Your task to perform on an android device: open a bookmark in the chrome app Image 0: 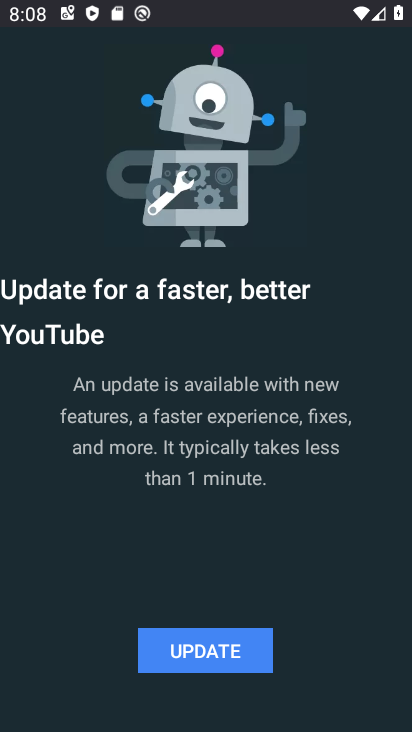
Step 0: press home button
Your task to perform on an android device: open a bookmark in the chrome app Image 1: 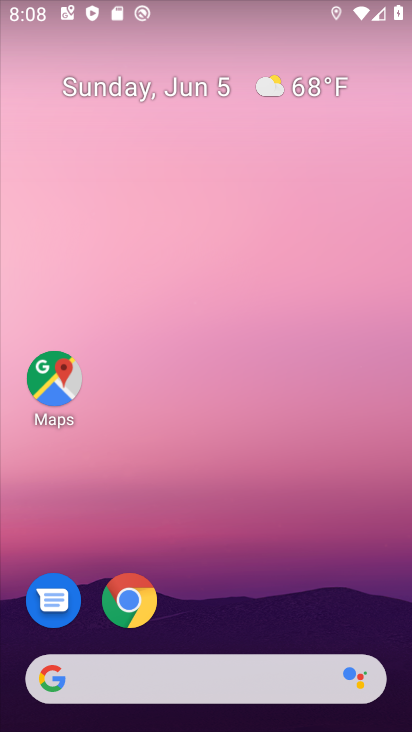
Step 1: click (141, 606)
Your task to perform on an android device: open a bookmark in the chrome app Image 2: 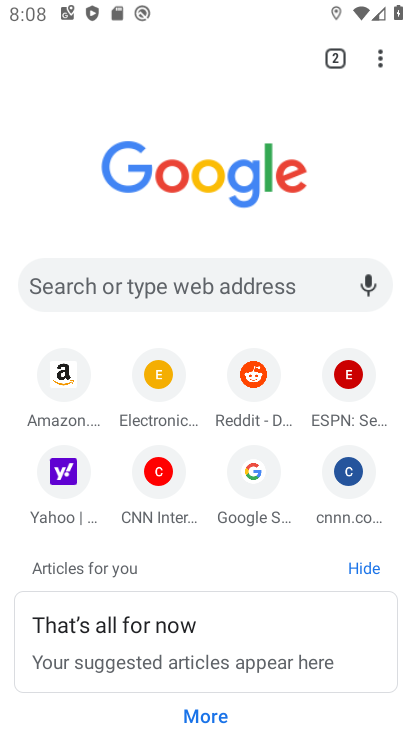
Step 2: click (380, 65)
Your task to perform on an android device: open a bookmark in the chrome app Image 3: 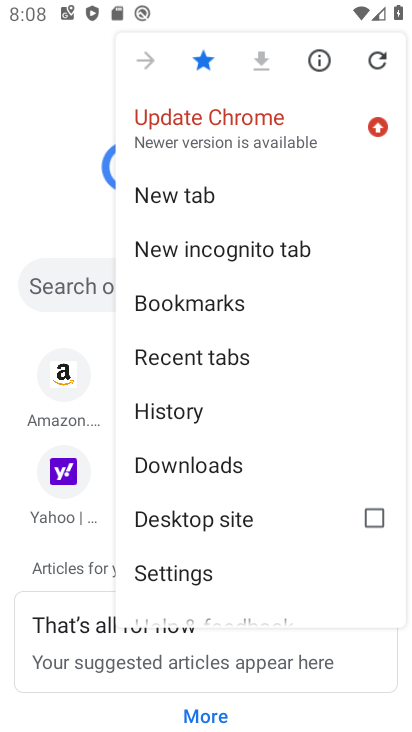
Step 3: click (210, 302)
Your task to perform on an android device: open a bookmark in the chrome app Image 4: 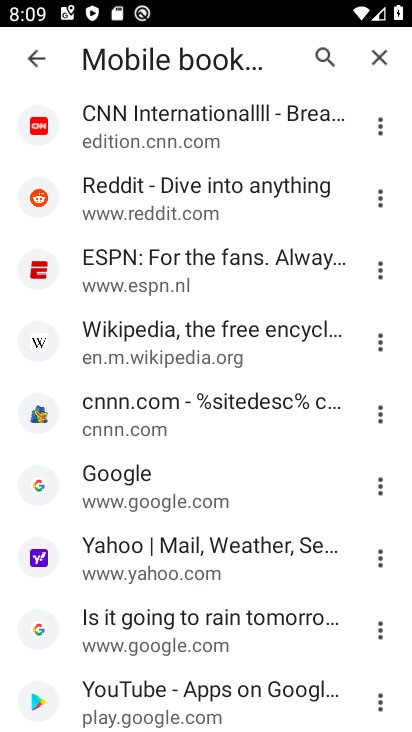
Step 4: click (161, 618)
Your task to perform on an android device: open a bookmark in the chrome app Image 5: 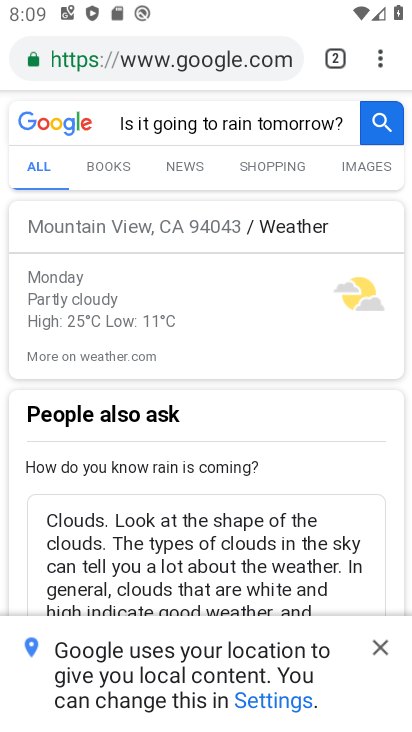
Step 5: task complete